Your task to perform on an android device: Go to sound settings Image 0: 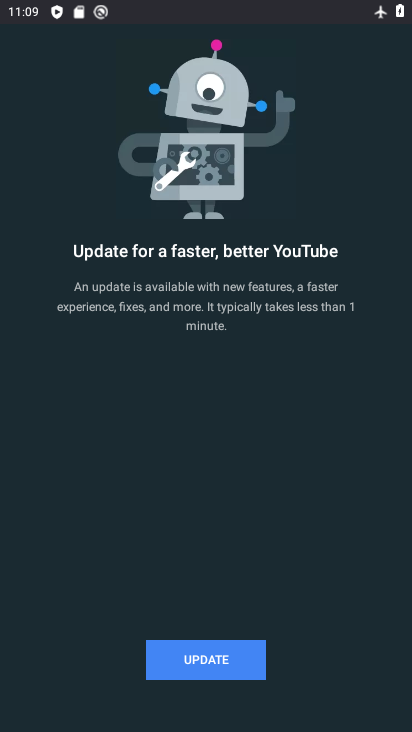
Step 0: press home button
Your task to perform on an android device: Go to sound settings Image 1: 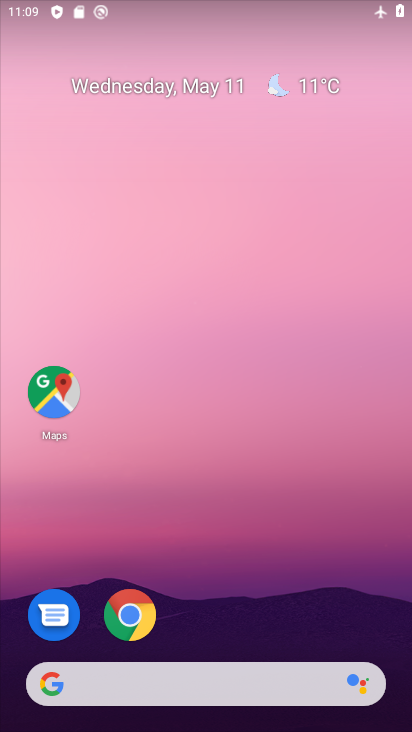
Step 1: drag from (266, 591) to (265, 51)
Your task to perform on an android device: Go to sound settings Image 2: 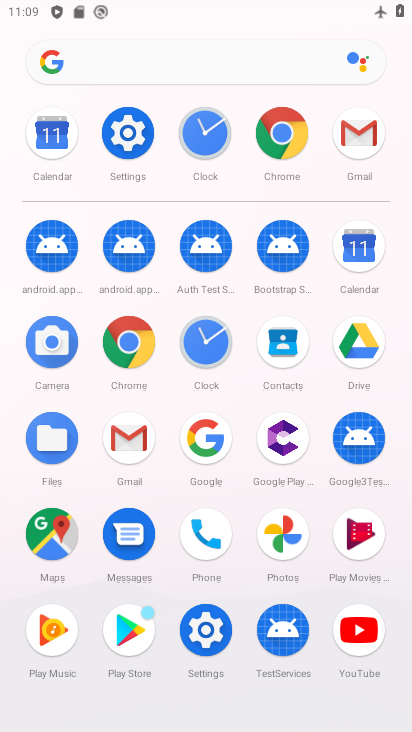
Step 2: click (153, 142)
Your task to perform on an android device: Go to sound settings Image 3: 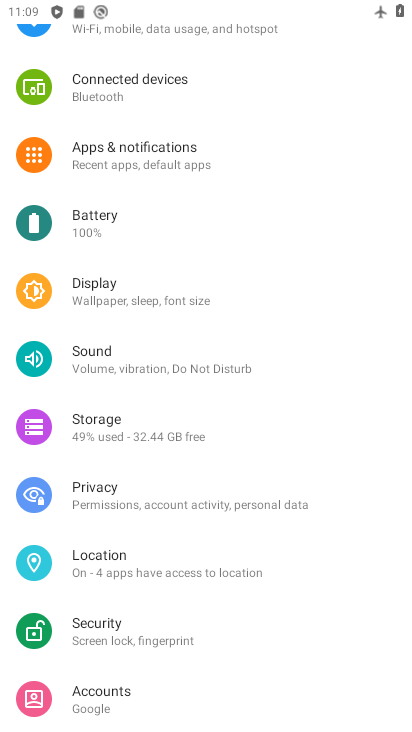
Step 3: click (167, 358)
Your task to perform on an android device: Go to sound settings Image 4: 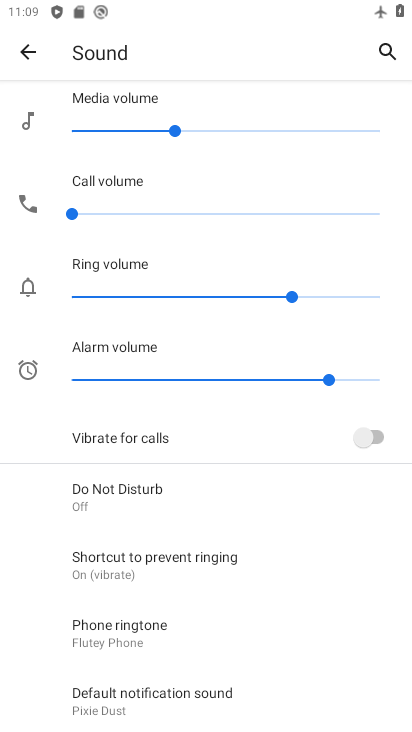
Step 4: task complete